Your task to perform on an android device: Go to Yahoo.com Image 0: 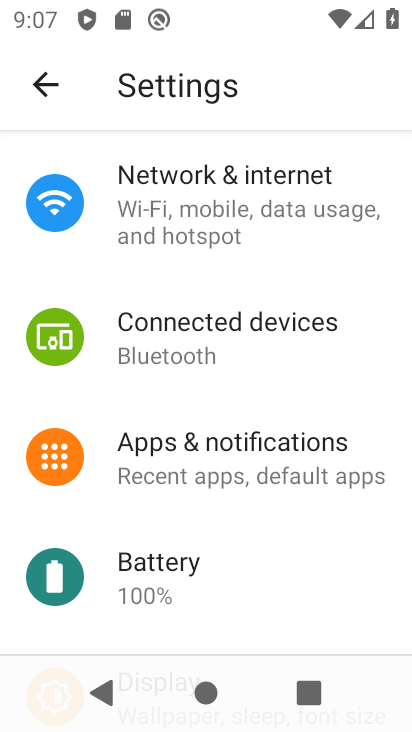
Step 0: press back button
Your task to perform on an android device: Go to Yahoo.com Image 1: 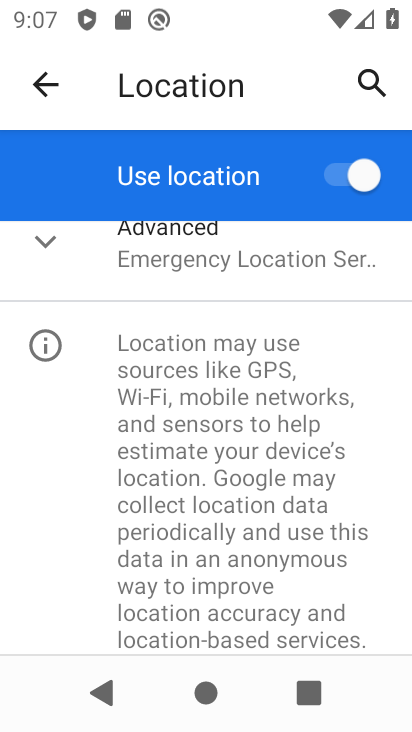
Step 1: click (25, 79)
Your task to perform on an android device: Go to Yahoo.com Image 2: 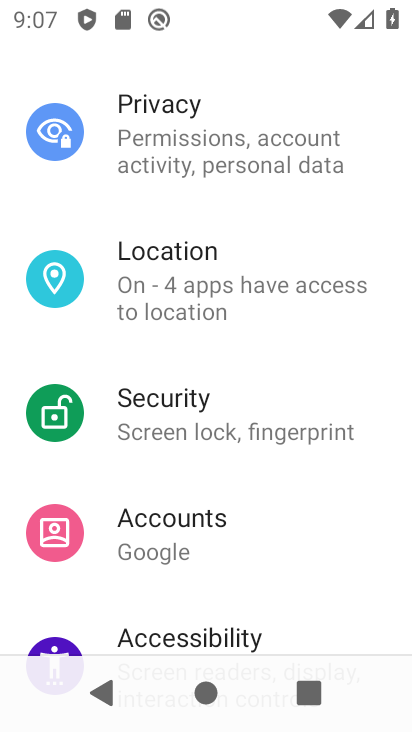
Step 2: click (42, 86)
Your task to perform on an android device: Go to Yahoo.com Image 3: 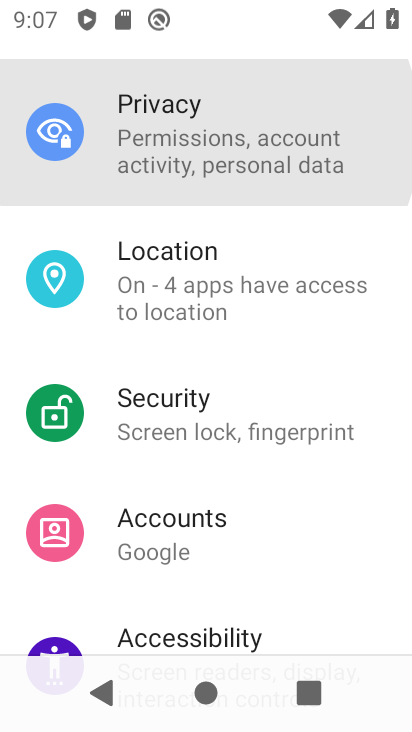
Step 3: press back button
Your task to perform on an android device: Go to Yahoo.com Image 4: 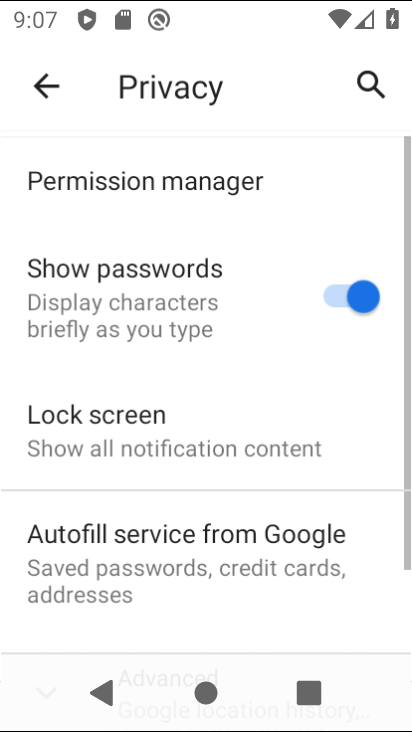
Step 4: press home button
Your task to perform on an android device: Go to Yahoo.com Image 5: 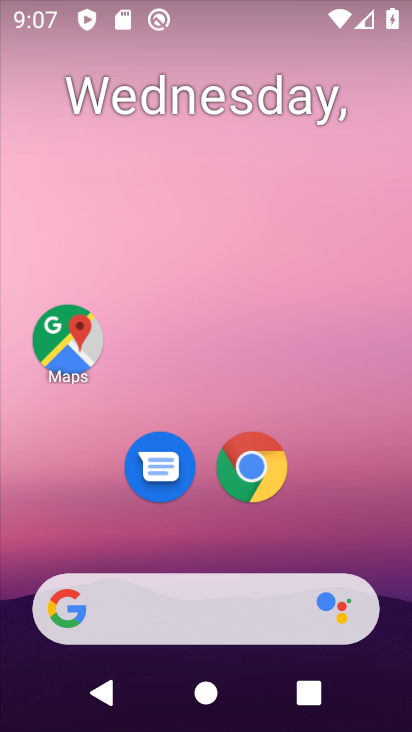
Step 5: drag from (370, 545) to (87, 103)
Your task to perform on an android device: Go to Yahoo.com Image 6: 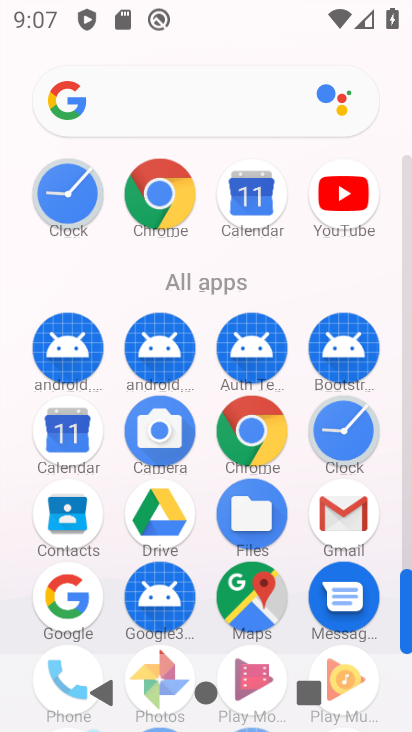
Step 6: click (165, 279)
Your task to perform on an android device: Go to Yahoo.com Image 7: 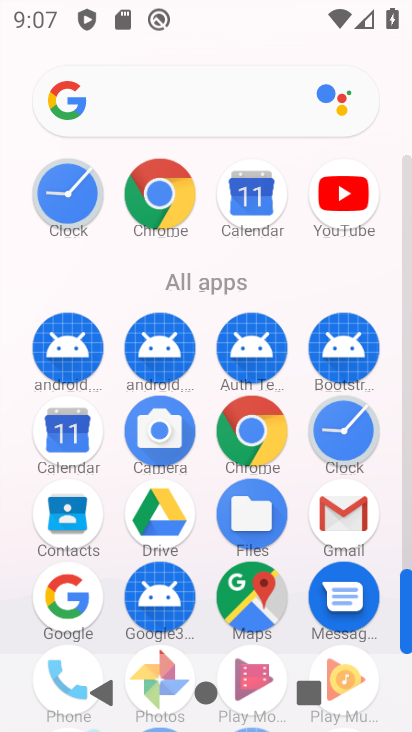
Step 7: click (142, 268)
Your task to perform on an android device: Go to Yahoo.com Image 8: 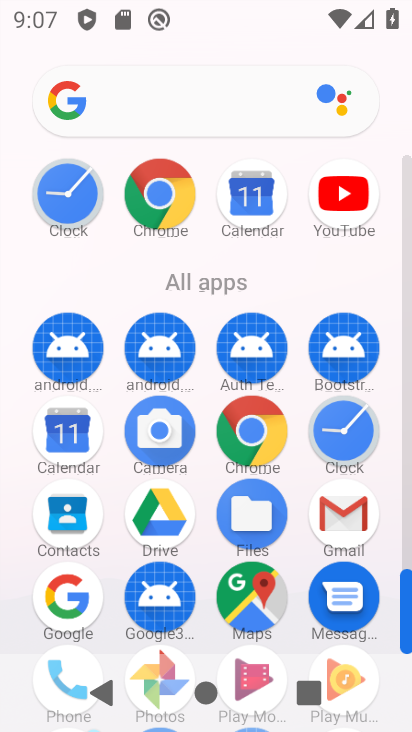
Step 8: click (167, 221)
Your task to perform on an android device: Go to Yahoo.com Image 9: 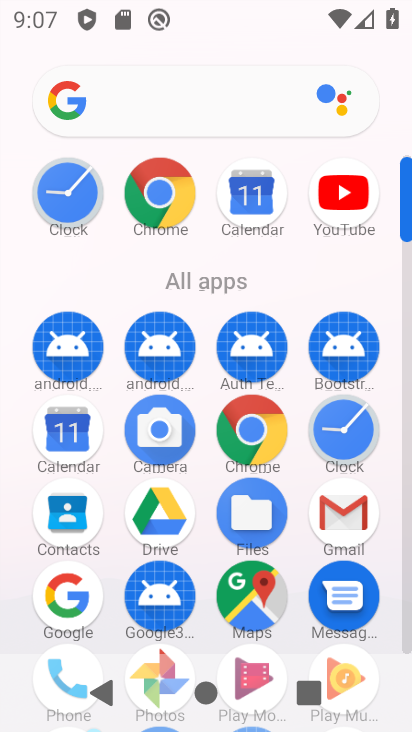
Step 9: click (162, 199)
Your task to perform on an android device: Go to Yahoo.com Image 10: 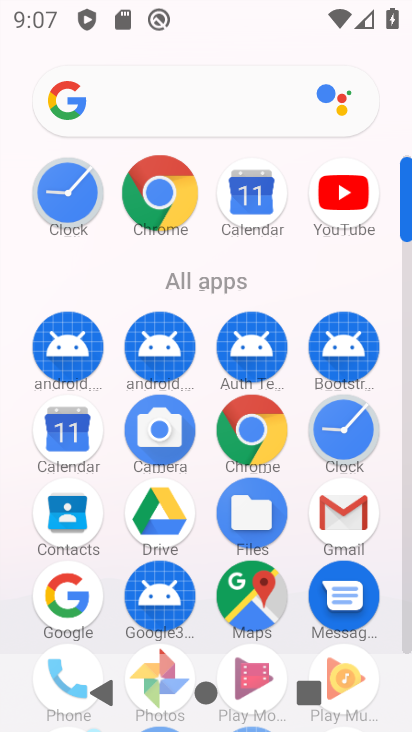
Step 10: click (165, 196)
Your task to perform on an android device: Go to Yahoo.com Image 11: 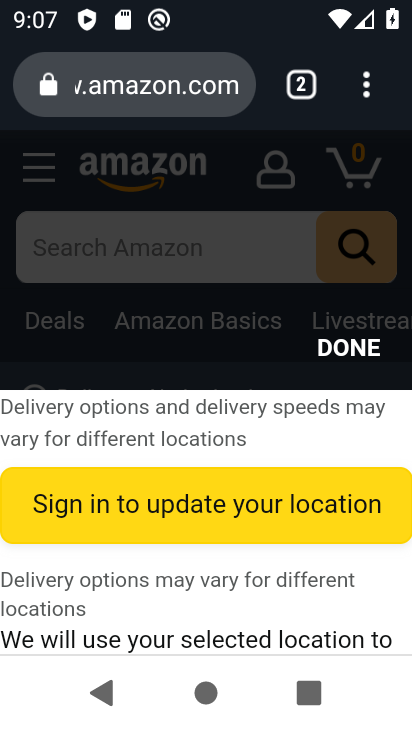
Step 11: click (160, 195)
Your task to perform on an android device: Go to Yahoo.com Image 12: 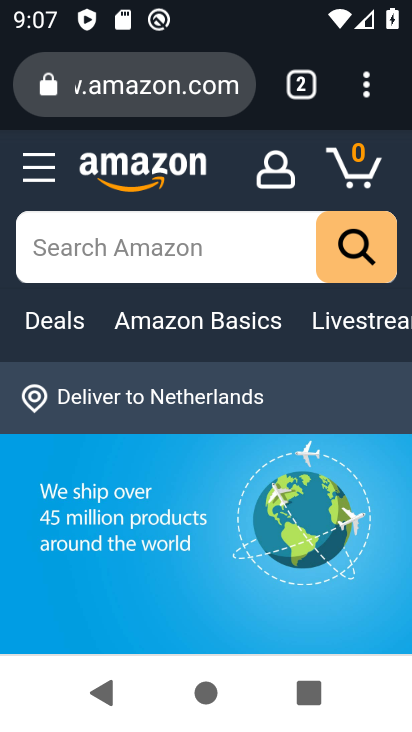
Step 12: click (152, 174)
Your task to perform on an android device: Go to Yahoo.com Image 13: 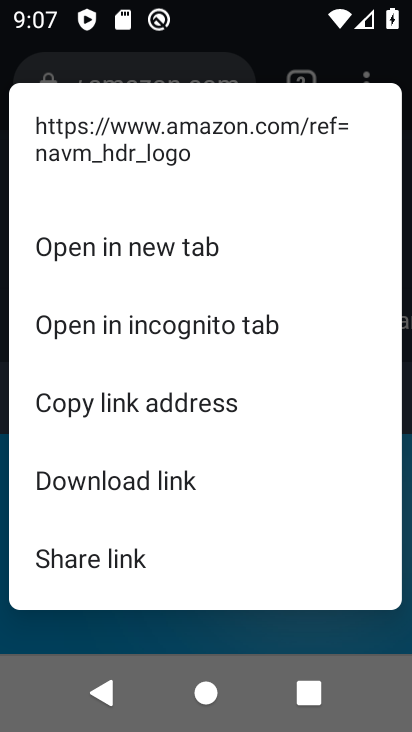
Step 13: drag from (360, 89) to (169, 613)
Your task to perform on an android device: Go to Yahoo.com Image 14: 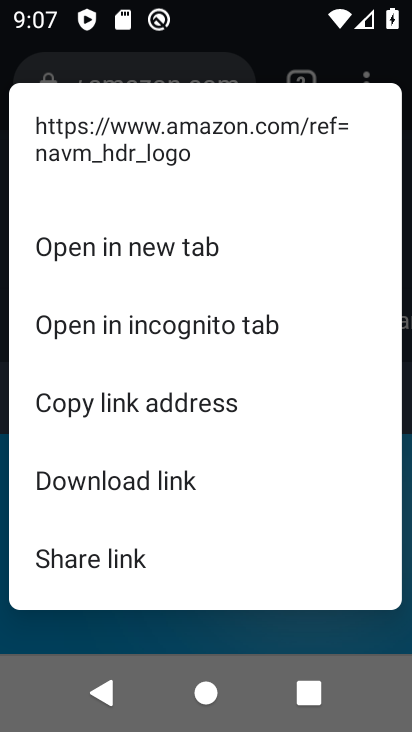
Step 14: click (160, 607)
Your task to perform on an android device: Go to Yahoo.com Image 15: 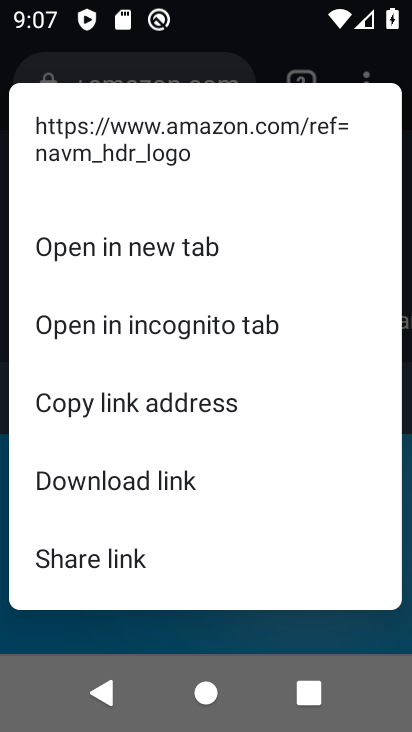
Step 15: click (166, 606)
Your task to perform on an android device: Go to Yahoo.com Image 16: 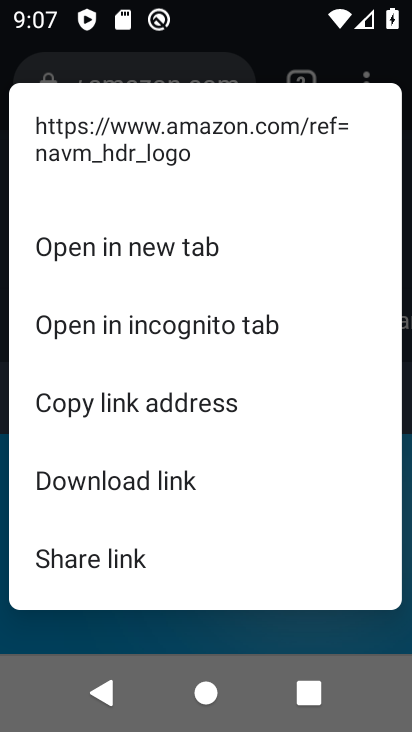
Step 16: click (169, 614)
Your task to perform on an android device: Go to Yahoo.com Image 17: 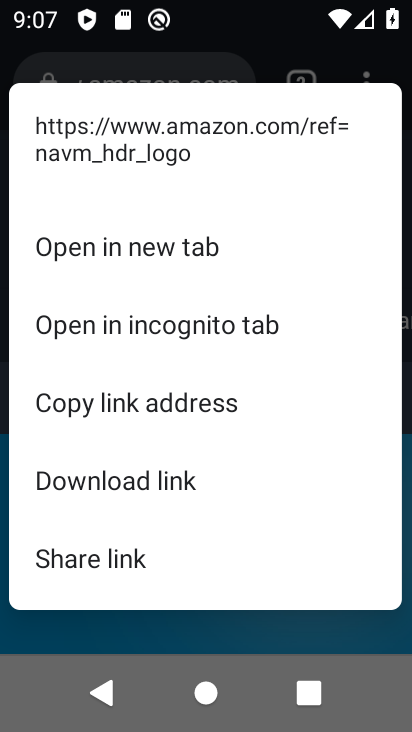
Step 17: click (181, 634)
Your task to perform on an android device: Go to Yahoo.com Image 18: 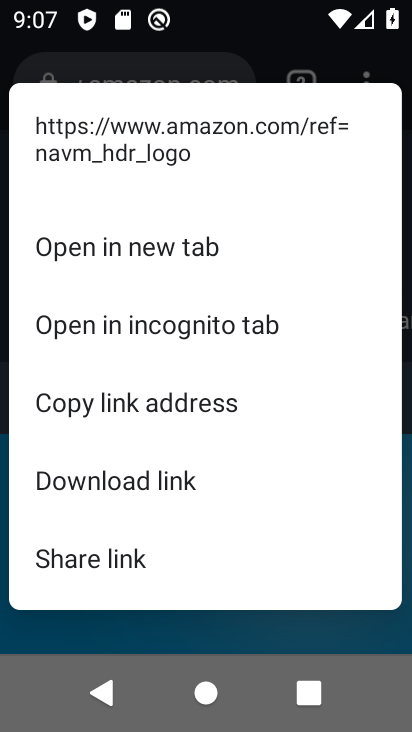
Step 18: click (179, 634)
Your task to perform on an android device: Go to Yahoo.com Image 19: 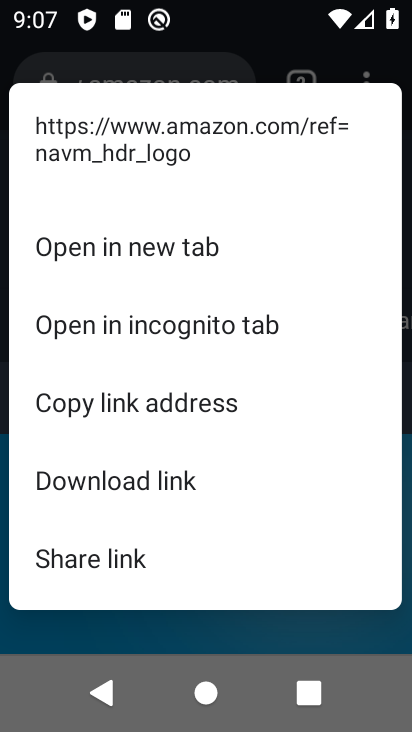
Step 19: click (178, 632)
Your task to perform on an android device: Go to Yahoo.com Image 20: 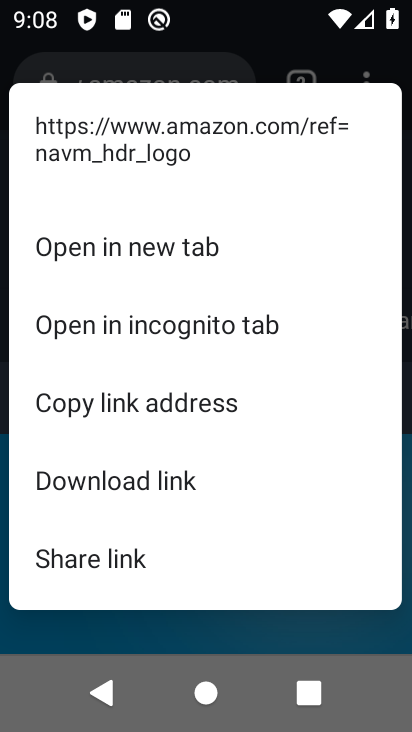
Step 20: click (60, 627)
Your task to perform on an android device: Go to Yahoo.com Image 21: 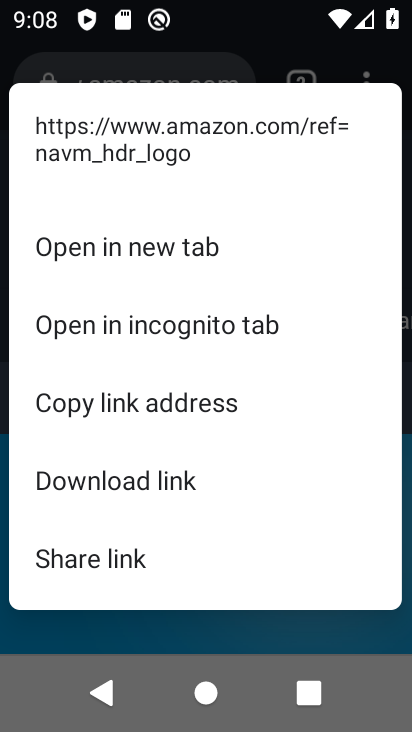
Step 21: click (130, 241)
Your task to perform on an android device: Go to Yahoo.com Image 22: 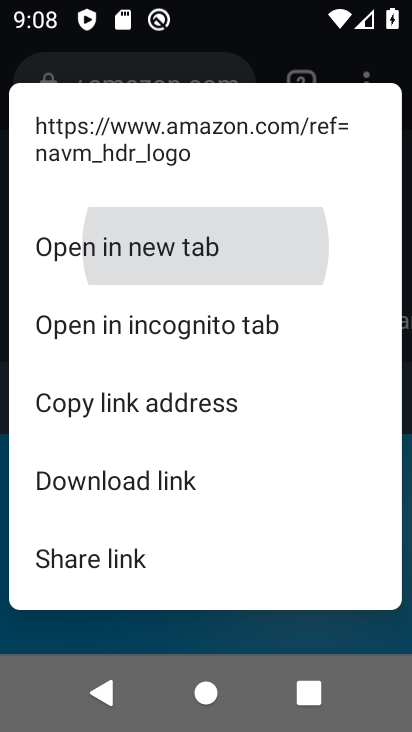
Step 22: click (127, 242)
Your task to perform on an android device: Go to Yahoo.com Image 23: 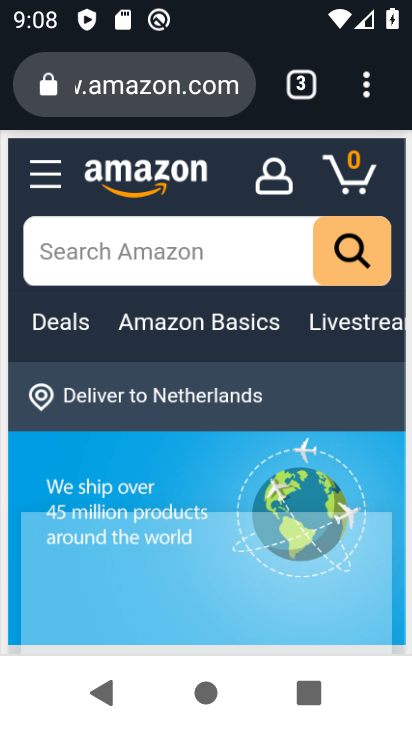
Step 23: click (127, 240)
Your task to perform on an android device: Go to Yahoo.com Image 24: 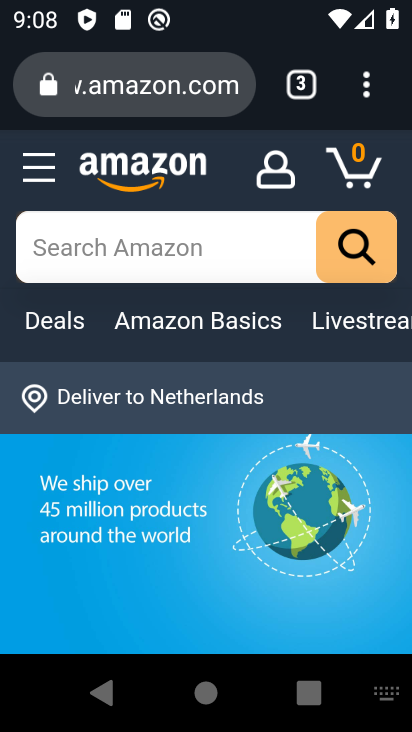
Step 24: drag from (369, 90) to (92, 187)
Your task to perform on an android device: Go to Yahoo.com Image 25: 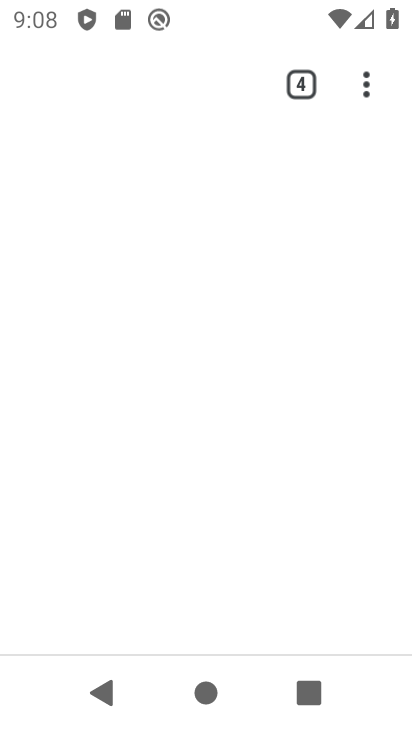
Step 25: click (94, 183)
Your task to perform on an android device: Go to Yahoo.com Image 26: 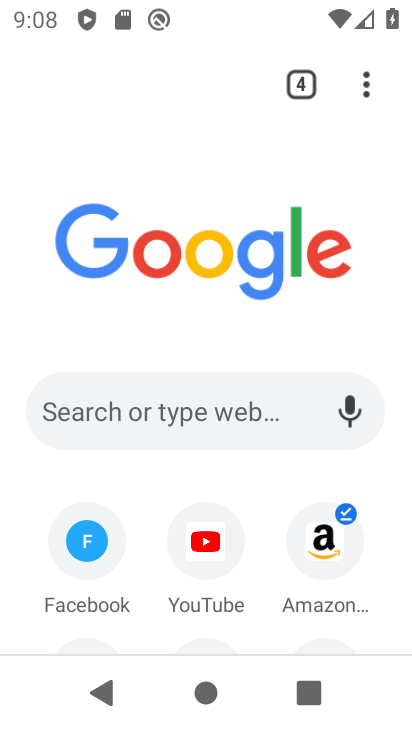
Step 26: drag from (250, 502) to (165, 98)
Your task to perform on an android device: Go to Yahoo.com Image 27: 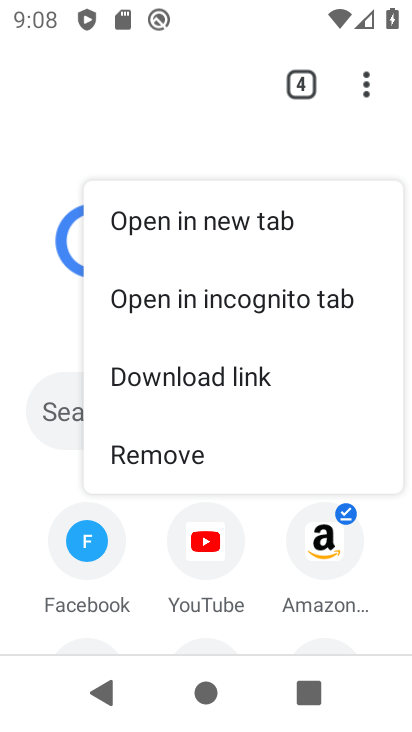
Step 27: click (195, 220)
Your task to perform on an android device: Go to Yahoo.com Image 28: 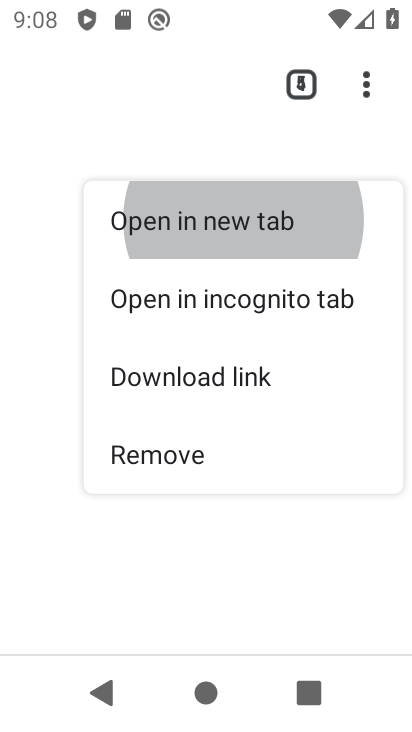
Step 28: click (195, 220)
Your task to perform on an android device: Go to Yahoo.com Image 29: 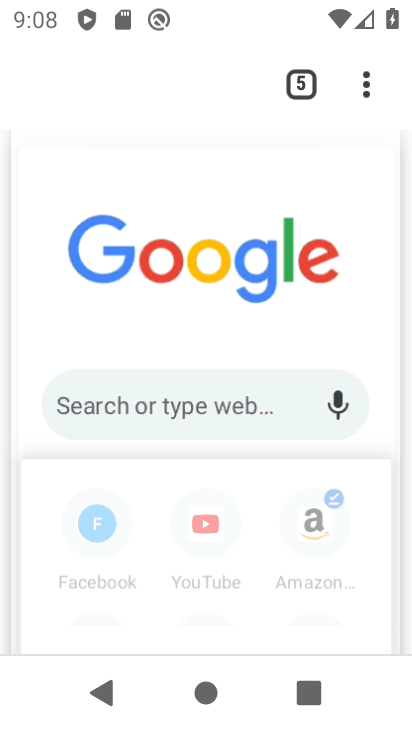
Step 29: click (193, 218)
Your task to perform on an android device: Go to Yahoo.com Image 30: 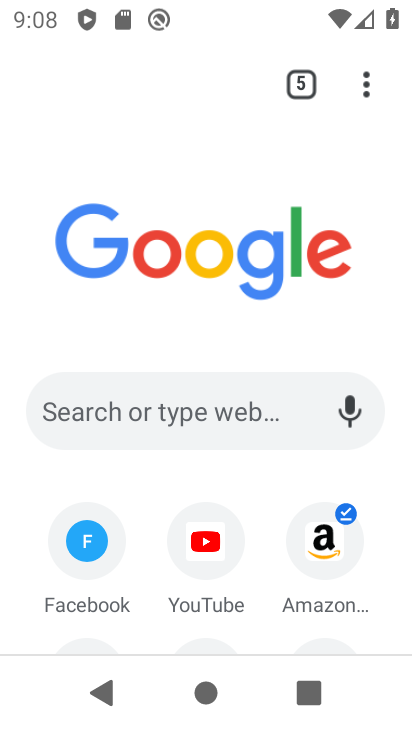
Step 30: drag from (249, 533) to (172, 96)
Your task to perform on an android device: Go to Yahoo.com Image 31: 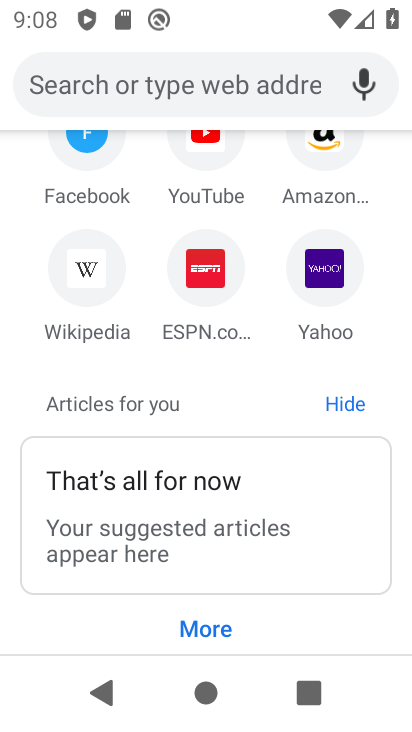
Step 31: drag from (240, 468) to (173, 35)
Your task to perform on an android device: Go to Yahoo.com Image 32: 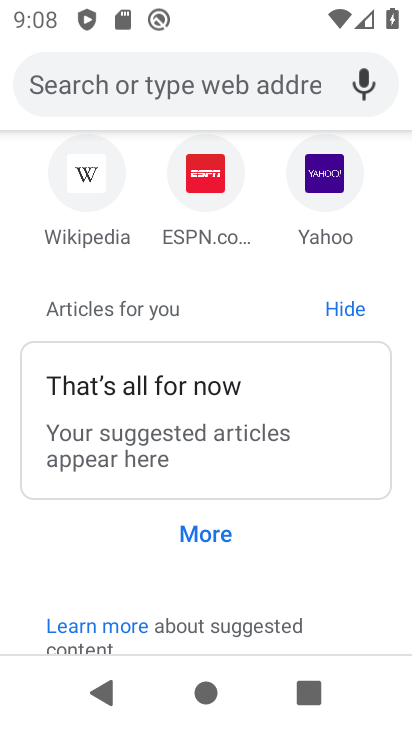
Step 32: drag from (209, 537) to (208, 136)
Your task to perform on an android device: Go to Yahoo.com Image 33: 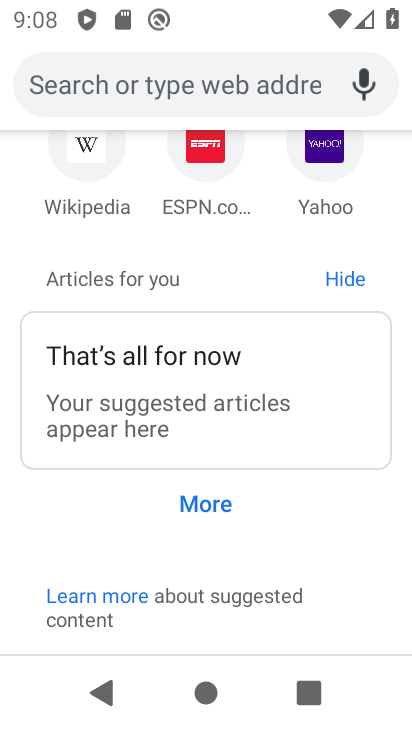
Step 33: click (323, 162)
Your task to perform on an android device: Go to Yahoo.com Image 34: 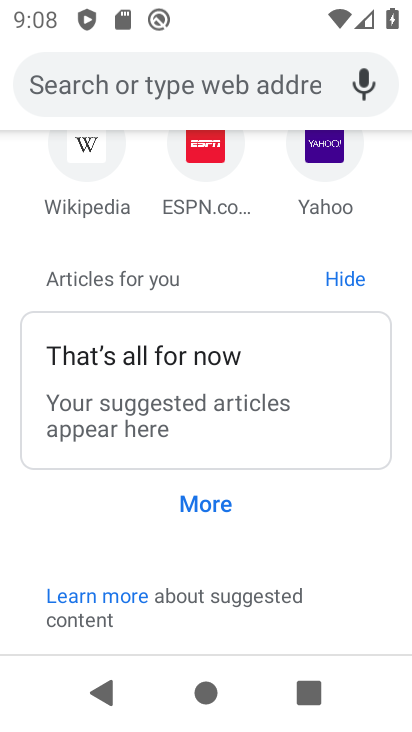
Step 34: click (323, 156)
Your task to perform on an android device: Go to Yahoo.com Image 35: 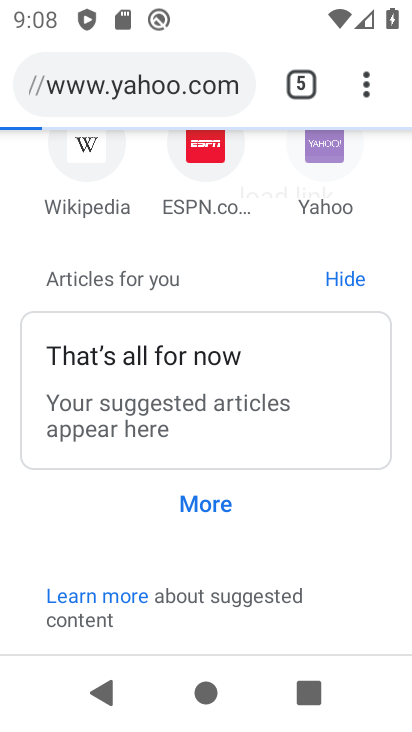
Step 35: click (323, 152)
Your task to perform on an android device: Go to Yahoo.com Image 36: 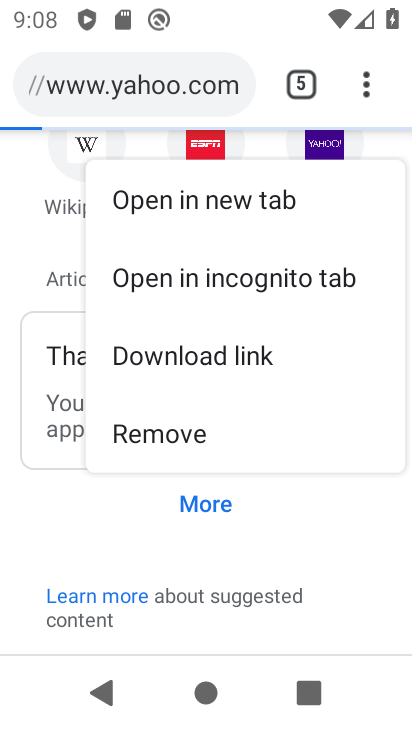
Step 36: click (323, 152)
Your task to perform on an android device: Go to Yahoo.com Image 37: 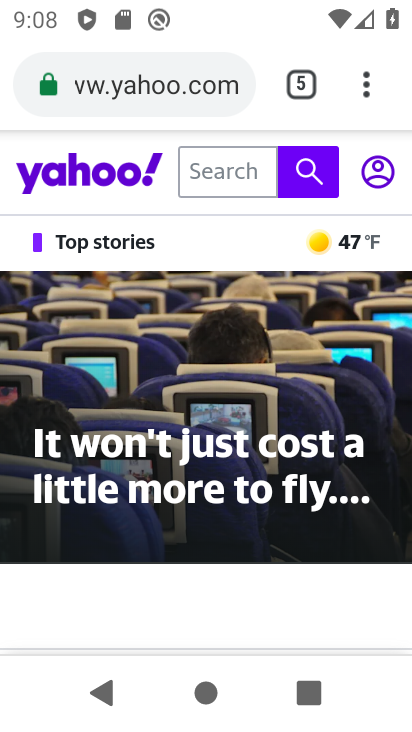
Step 37: task complete